Your task to perform on an android device: Go to Amazon Image 0: 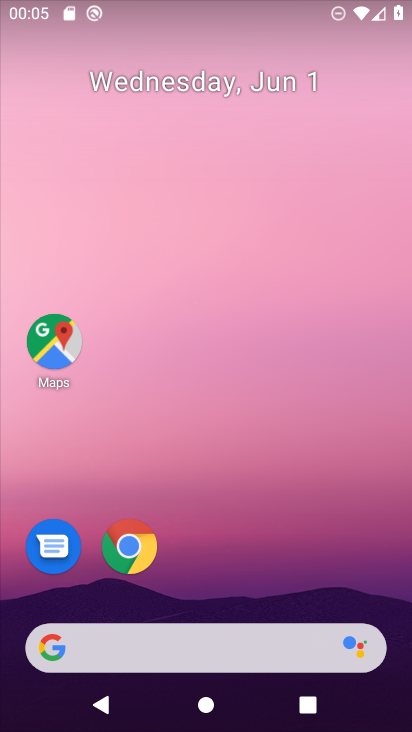
Step 0: click (119, 550)
Your task to perform on an android device: Go to Amazon Image 1: 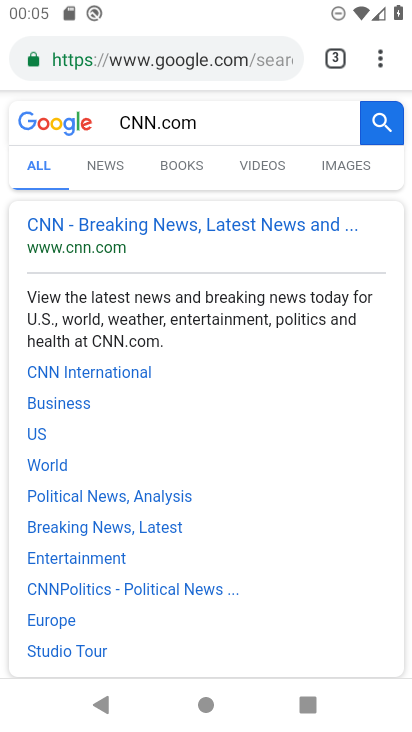
Step 1: click (289, 53)
Your task to perform on an android device: Go to Amazon Image 2: 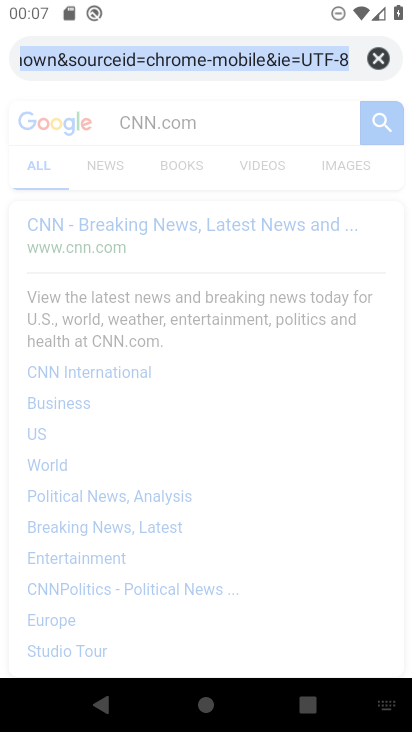
Step 2: click (382, 57)
Your task to perform on an android device: Go to Amazon Image 3: 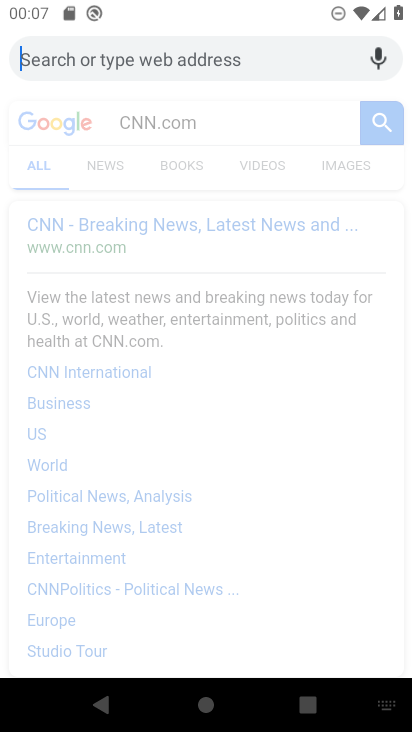
Step 3: type "Amazon"
Your task to perform on an android device: Go to Amazon Image 4: 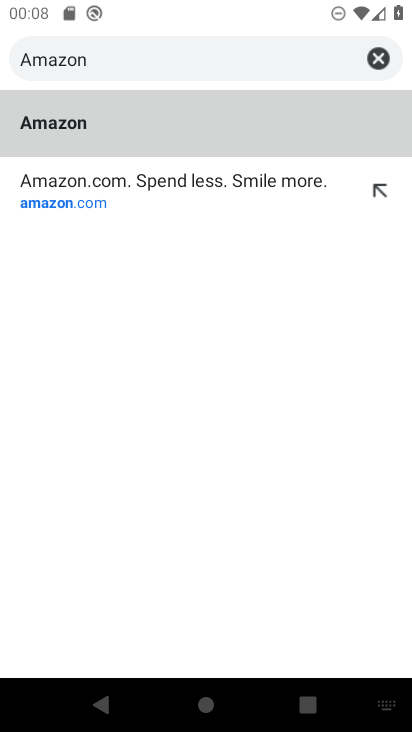
Step 4: click (76, 141)
Your task to perform on an android device: Go to Amazon Image 5: 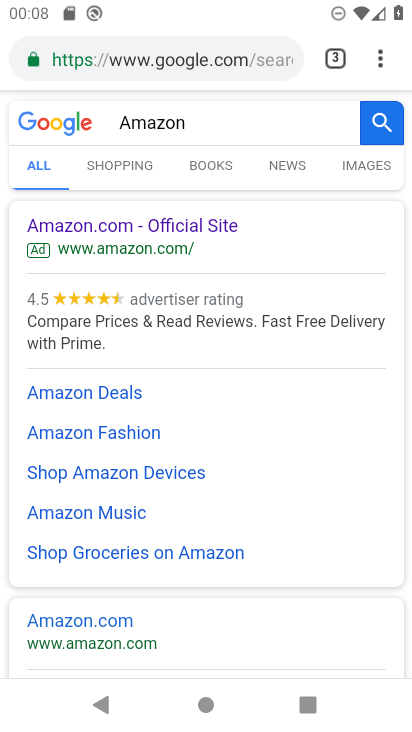
Step 5: task complete